Your task to perform on an android device: Open CNN.com Image 0: 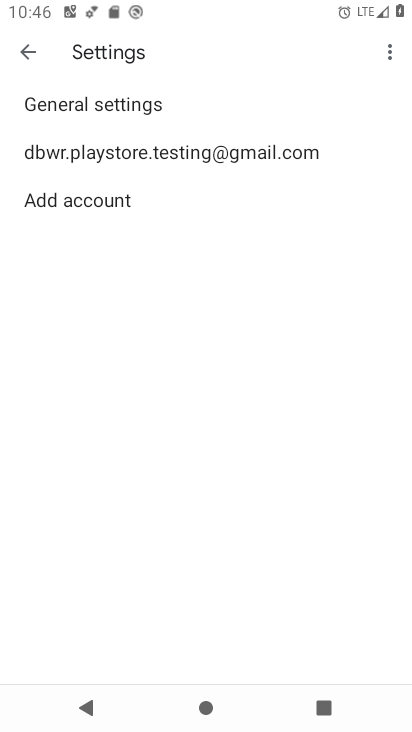
Step 0: press home button
Your task to perform on an android device: Open CNN.com Image 1: 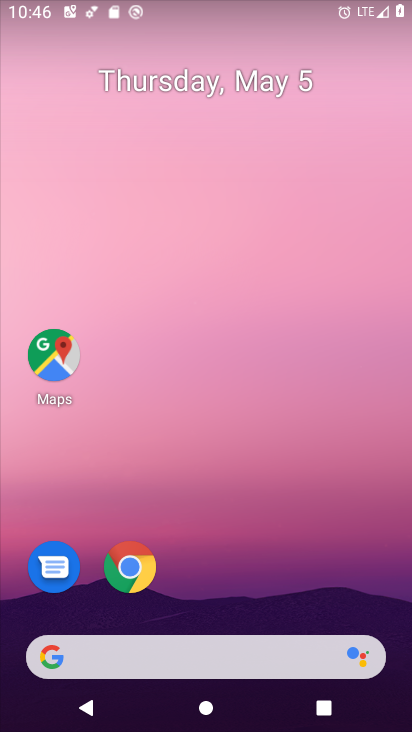
Step 1: click (246, 650)
Your task to perform on an android device: Open CNN.com Image 2: 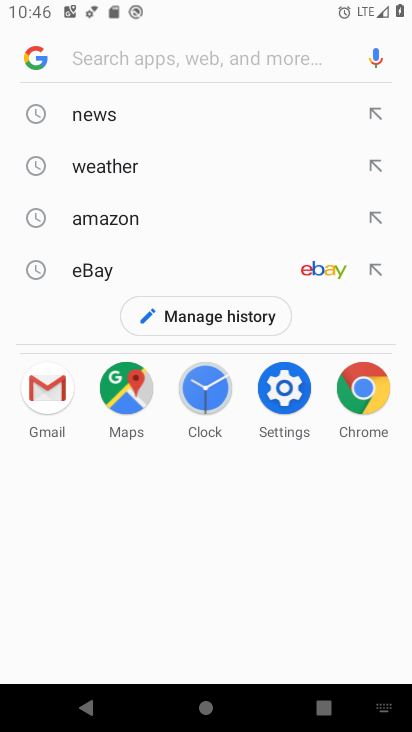
Step 2: type "CNN.com"
Your task to perform on an android device: Open CNN.com Image 3: 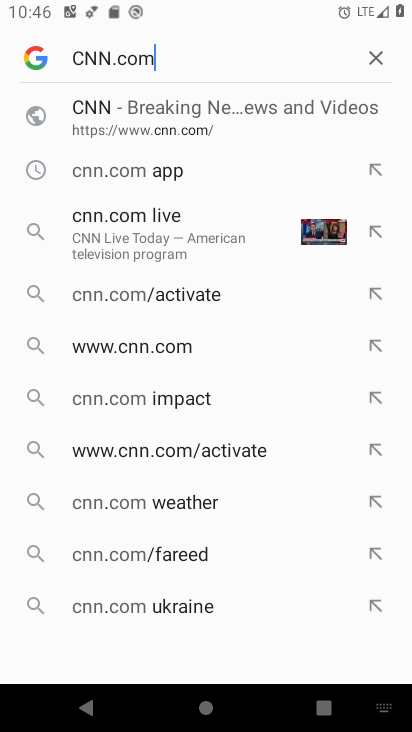
Step 3: click (302, 122)
Your task to perform on an android device: Open CNN.com Image 4: 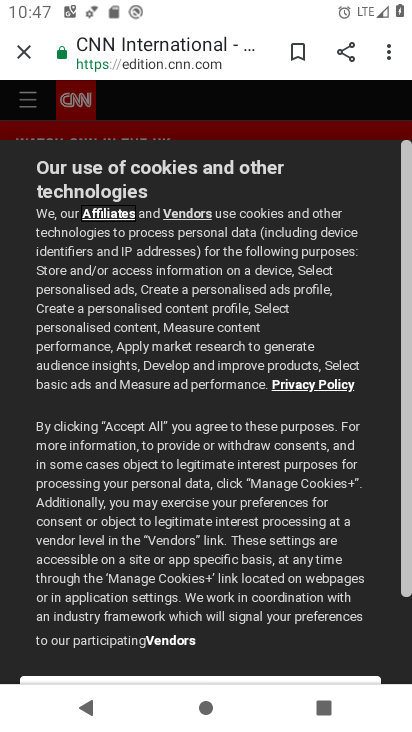
Step 4: task complete